Your task to perform on an android device: toggle show notifications on the lock screen Image 0: 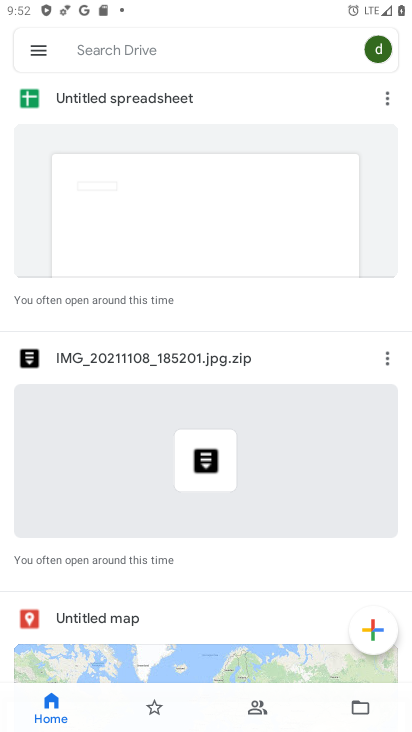
Step 0: press home button
Your task to perform on an android device: toggle show notifications on the lock screen Image 1: 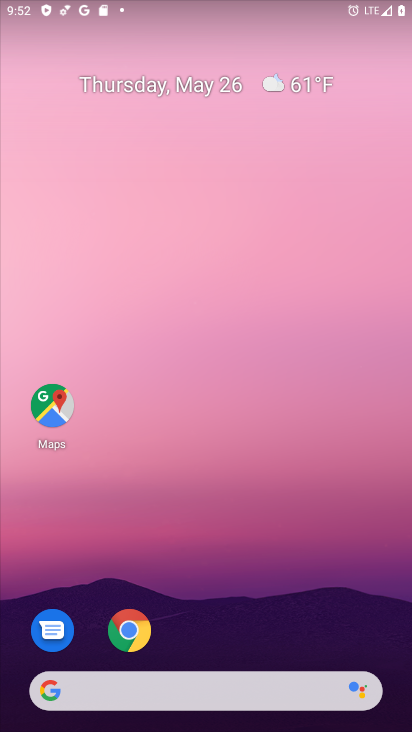
Step 1: drag from (249, 669) to (248, 196)
Your task to perform on an android device: toggle show notifications on the lock screen Image 2: 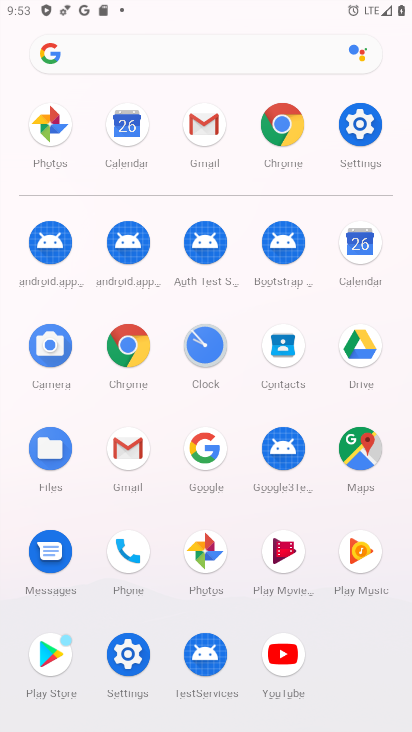
Step 2: click (375, 148)
Your task to perform on an android device: toggle show notifications on the lock screen Image 3: 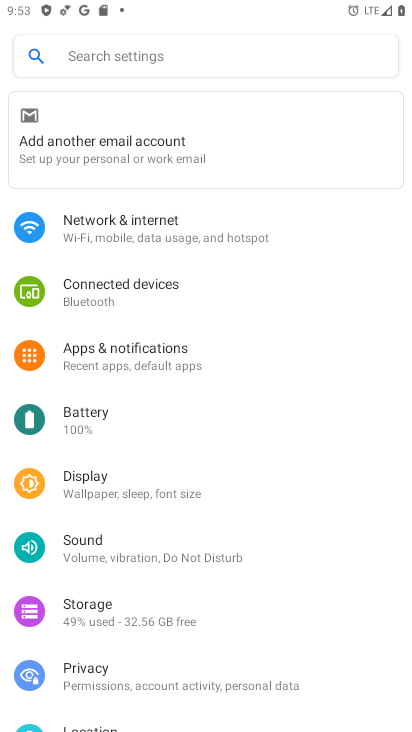
Step 3: click (171, 364)
Your task to perform on an android device: toggle show notifications on the lock screen Image 4: 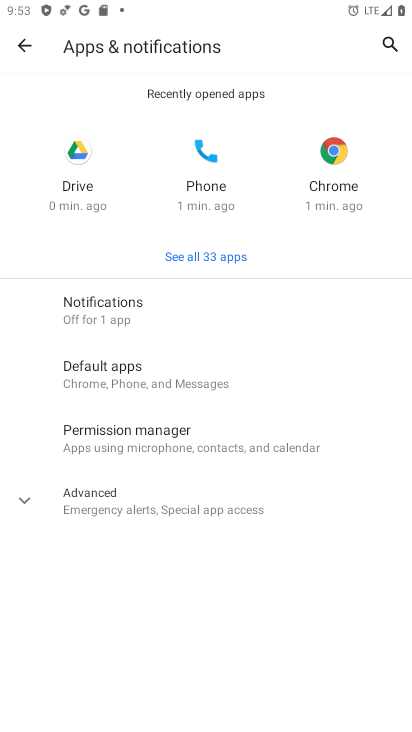
Step 4: click (143, 320)
Your task to perform on an android device: toggle show notifications on the lock screen Image 5: 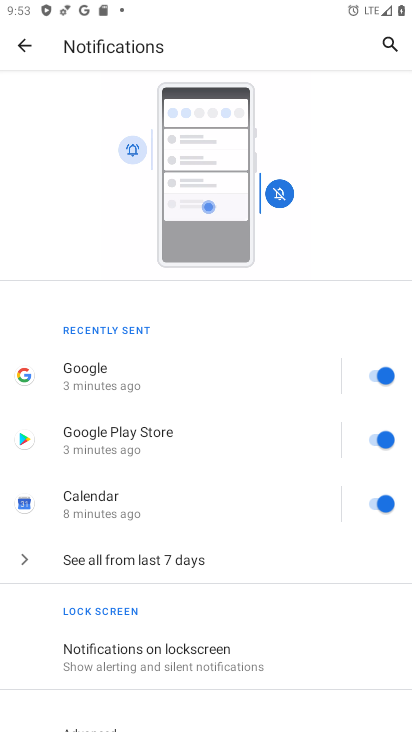
Step 5: click (162, 651)
Your task to perform on an android device: toggle show notifications on the lock screen Image 6: 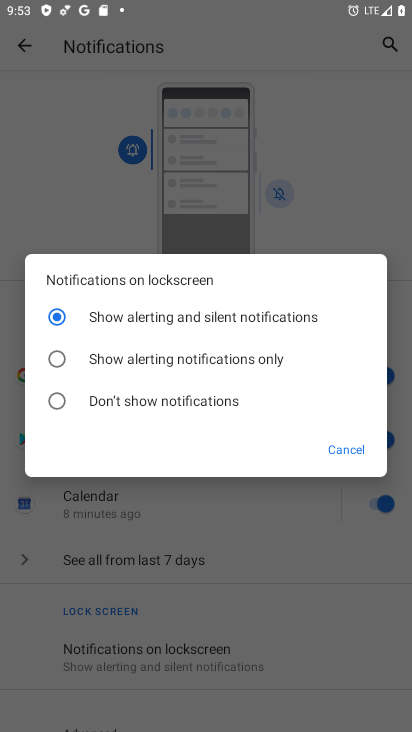
Step 6: click (127, 307)
Your task to perform on an android device: toggle show notifications on the lock screen Image 7: 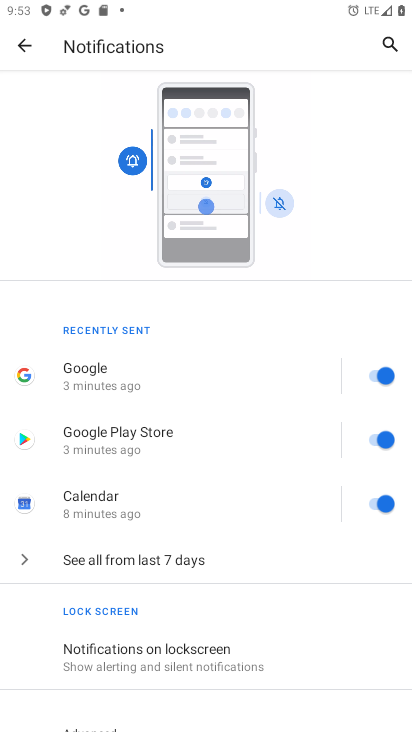
Step 7: task complete